Your task to perform on an android device: Do I have any events tomorrow? Image 0: 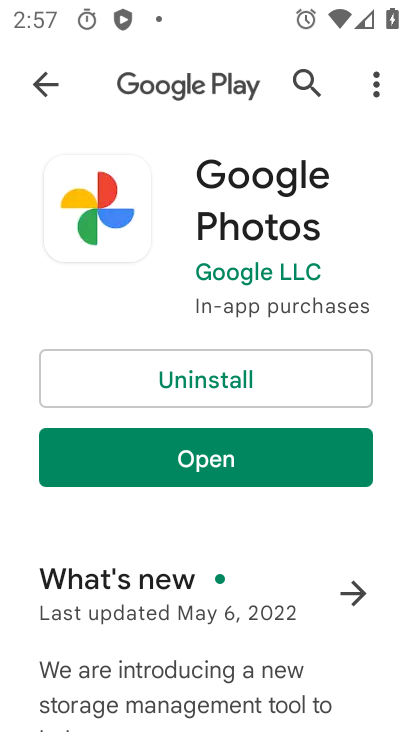
Step 0: press home button
Your task to perform on an android device: Do I have any events tomorrow? Image 1: 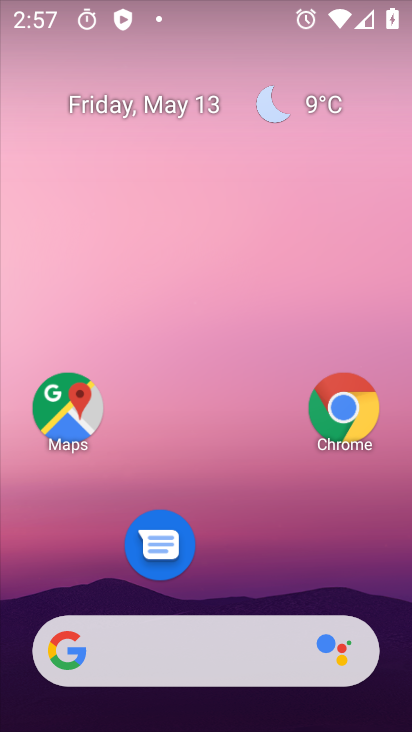
Step 1: drag from (236, 488) to (206, 104)
Your task to perform on an android device: Do I have any events tomorrow? Image 2: 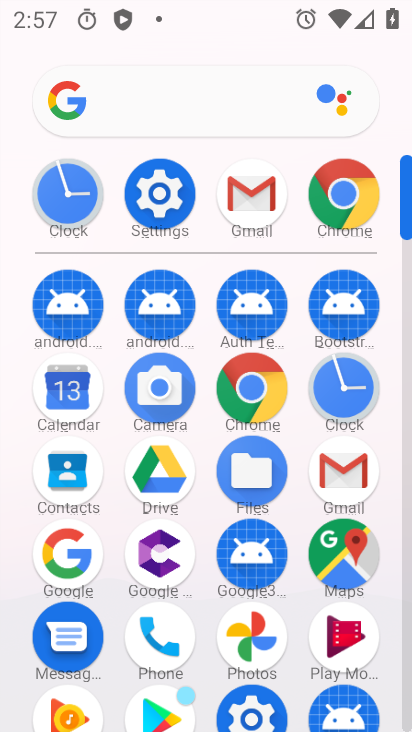
Step 2: click (62, 378)
Your task to perform on an android device: Do I have any events tomorrow? Image 3: 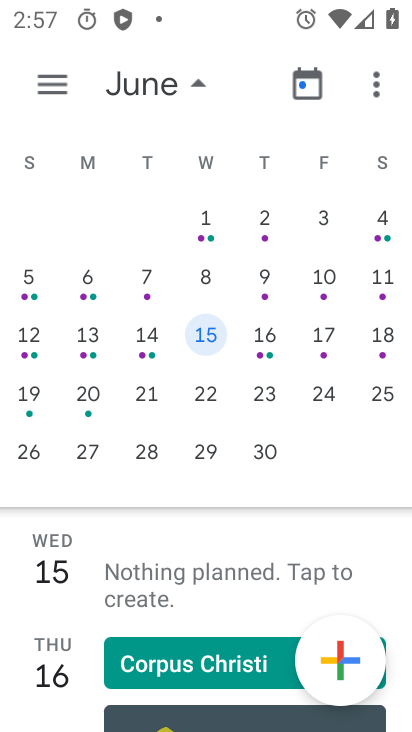
Step 3: click (60, 83)
Your task to perform on an android device: Do I have any events tomorrow? Image 4: 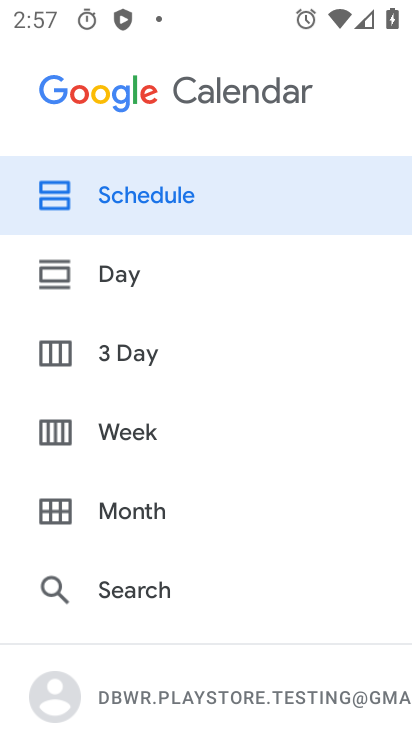
Step 4: click (137, 203)
Your task to perform on an android device: Do I have any events tomorrow? Image 5: 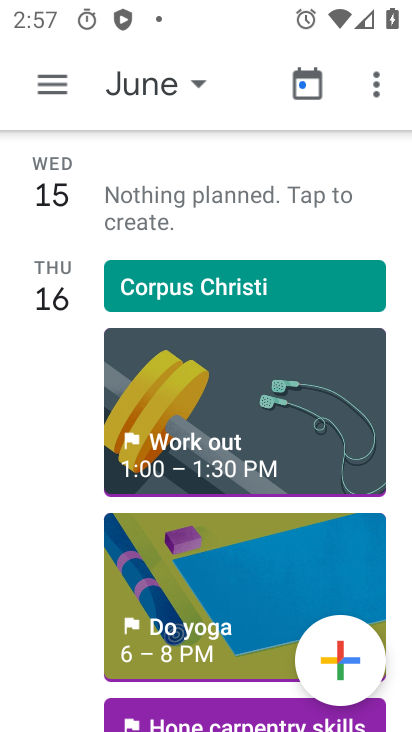
Step 5: click (168, 76)
Your task to perform on an android device: Do I have any events tomorrow? Image 6: 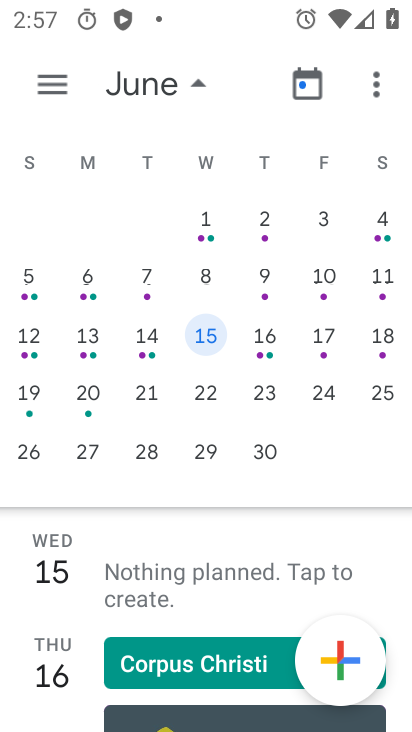
Step 6: drag from (23, 243) to (1, 201)
Your task to perform on an android device: Do I have any events tomorrow? Image 7: 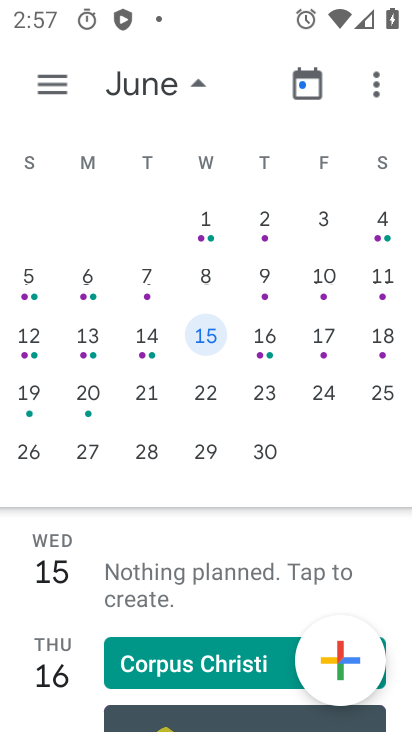
Step 7: drag from (72, 229) to (383, 223)
Your task to perform on an android device: Do I have any events tomorrow? Image 8: 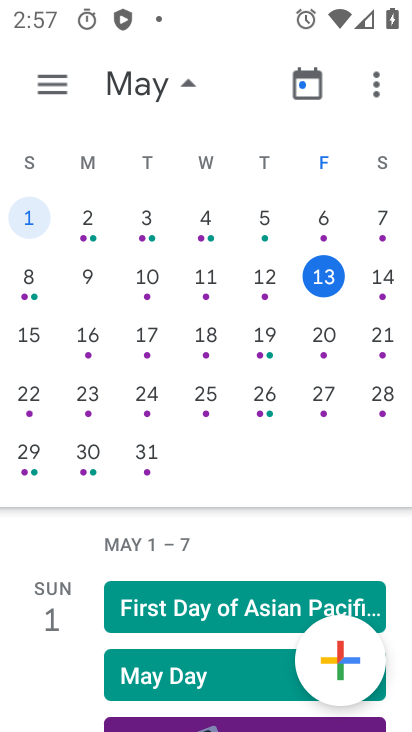
Step 8: click (374, 281)
Your task to perform on an android device: Do I have any events tomorrow? Image 9: 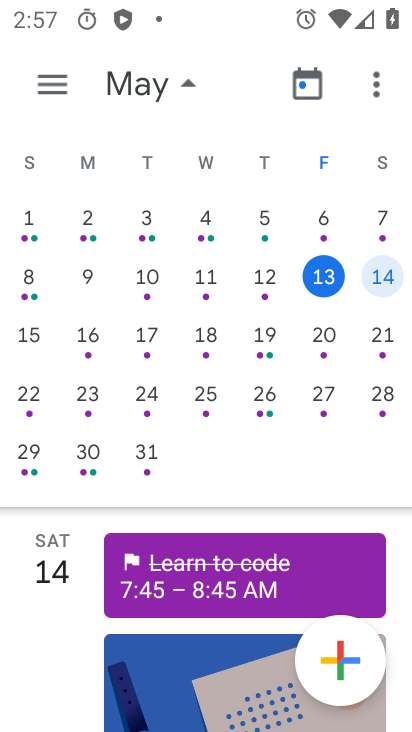
Step 9: task complete